Your task to perform on an android device: turn off location history Image 0: 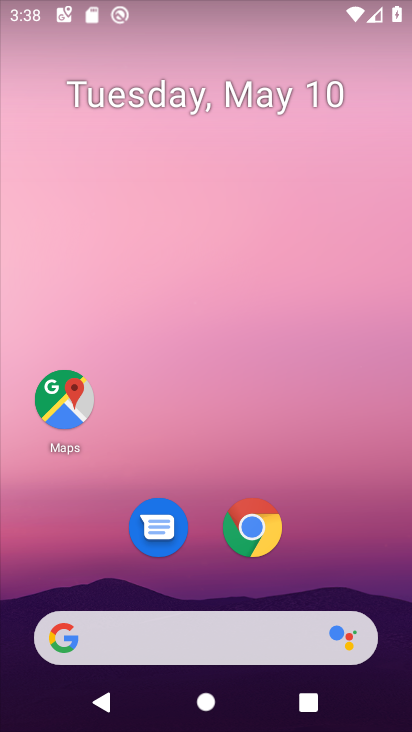
Step 0: drag from (381, 578) to (350, 302)
Your task to perform on an android device: turn off location history Image 1: 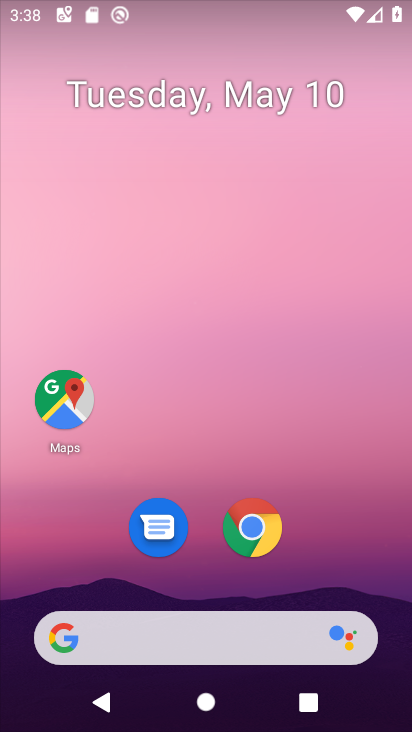
Step 1: drag from (394, 651) to (321, 316)
Your task to perform on an android device: turn off location history Image 2: 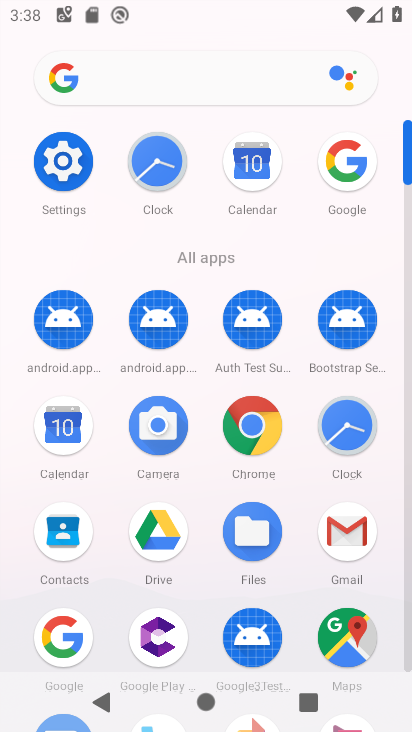
Step 2: click (47, 162)
Your task to perform on an android device: turn off location history Image 3: 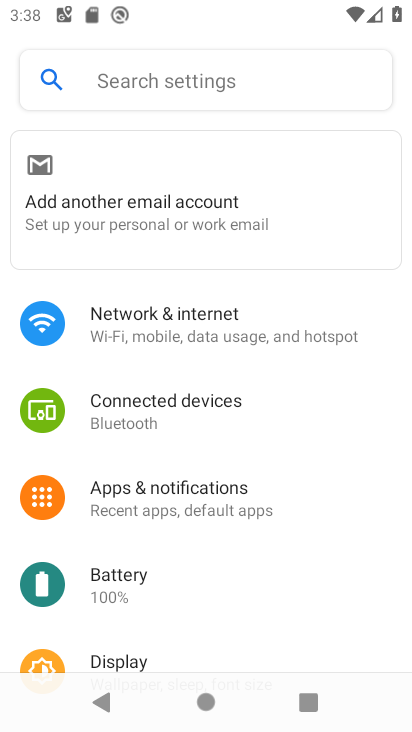
Step 3: drag from (340, 592) to (295, 420)
Your task to perform on an android device: turn off location history Image 4: 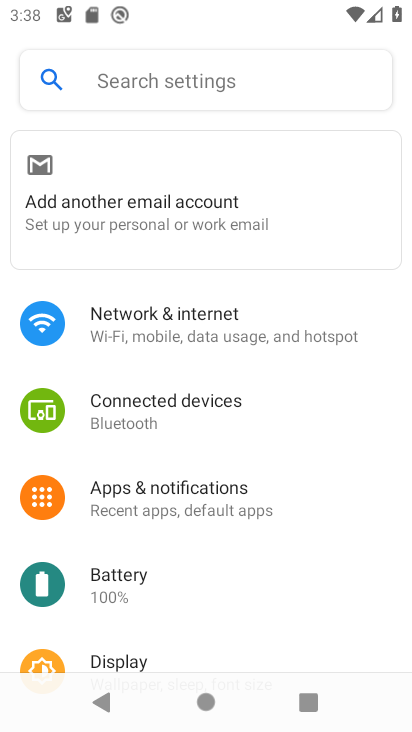
Step 4: drag from (369, 655) to (374, 409)
Your task to perform on an android device: turn off location history Image 5: 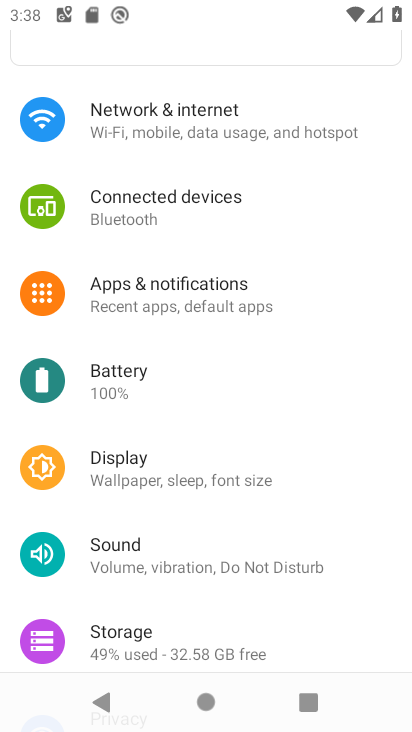
Step 5: drag from (358, 625) to (353, 390)
Your task to perform on an android device: turn off location history Image 6: 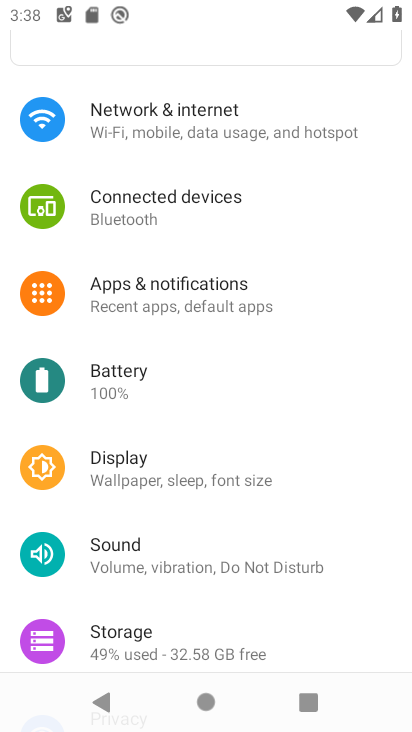
Step 6: drag from (349, 635) to (353, 345)
Your task to perform on an android device: turn off location history Image 7: 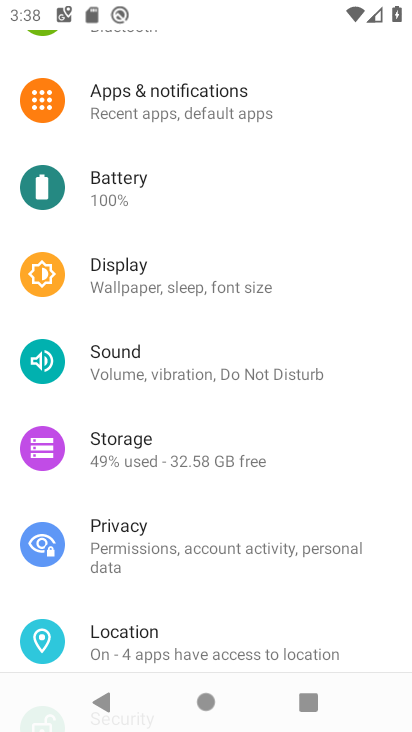
Step 7: drag from (357, 643) to (372, 361)
Your task to perform on an android device: turn off location history Image 8: 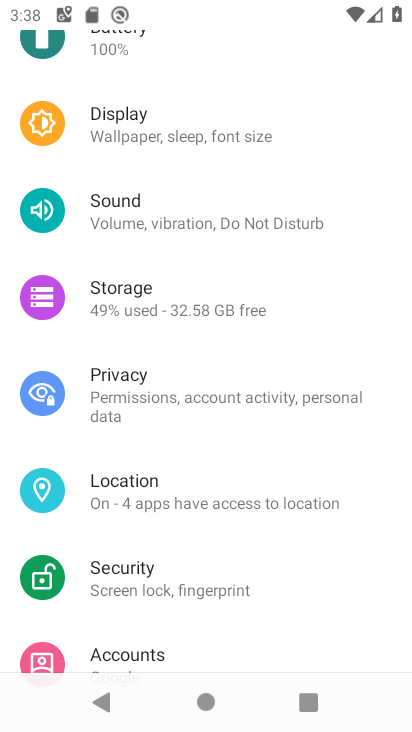
Step 8: click (119, 487)
Your task to perform on an android device: turn off location history Image 9: 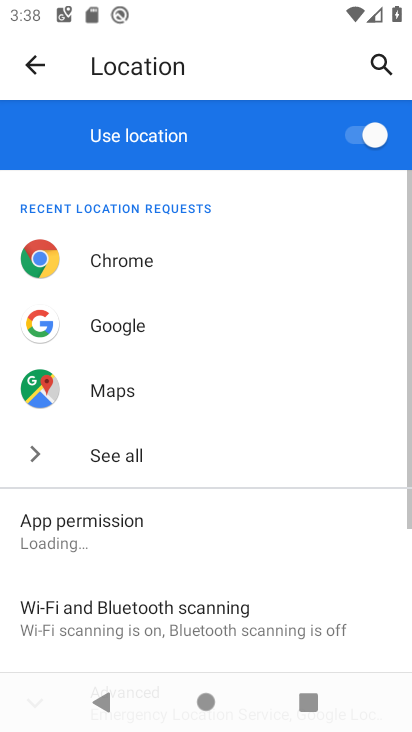
Step 9: drag from (314, 588) to (284, 280)
Your task to perform on an android device: turn off location history Image 10: 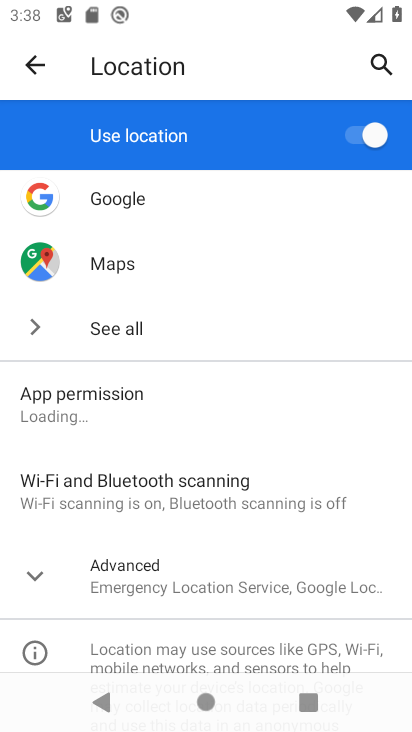
Step 10: drag from (315, 516) to (287, 285)
Your task to perform on an android device: turn off location history Image 11: 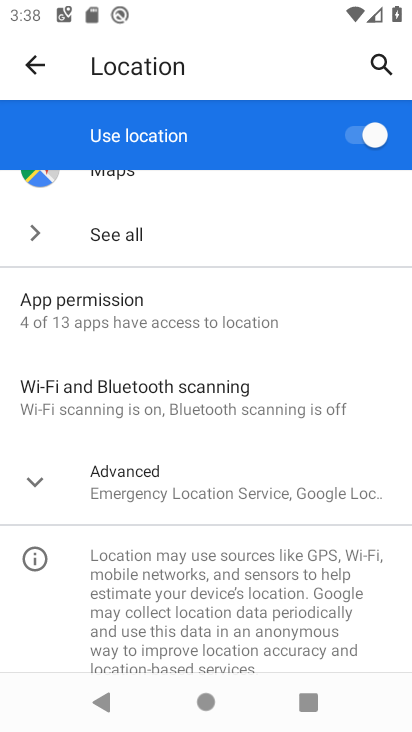
Step 11: drag from (187, 618) to (148, 285)
Your task to perform on an android device: turn off location history Image 12: 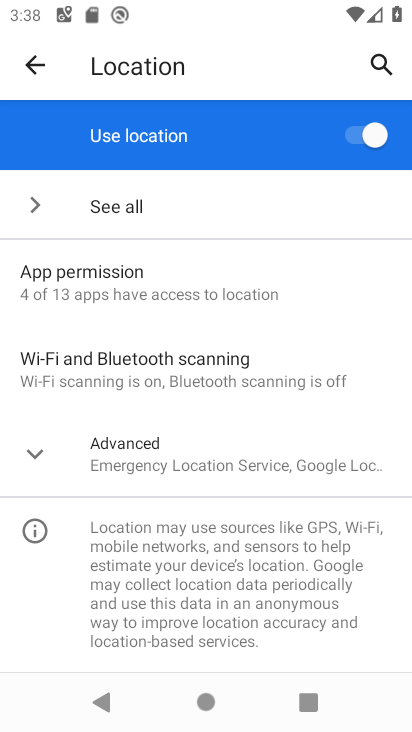
Step 12: click (37, 457)
Your task to perform on an android device: turn off location history Image 13: 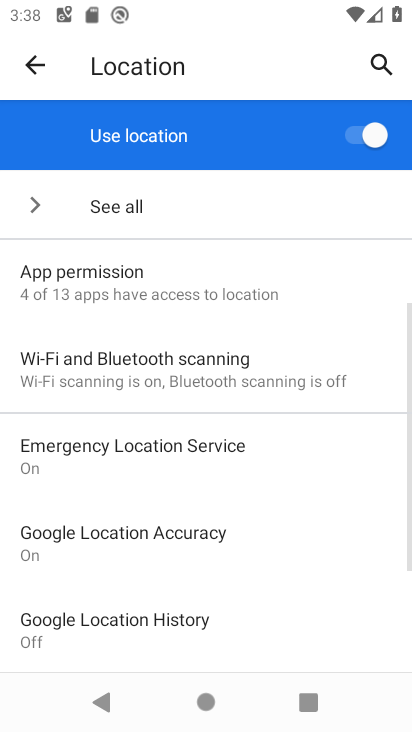
Step 13: drag from (264, 638) to (261, 443)
Your task to perform on an android device: turn off location history Image 14: 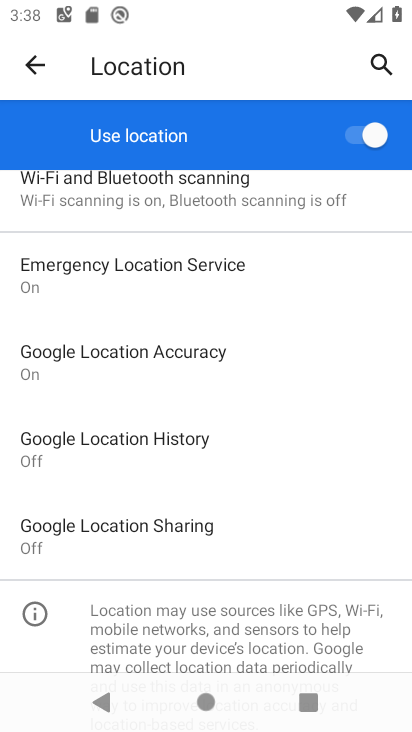
Step 14: click (89, 436)
Your task to perform on an android device: turn off location history Image 15: 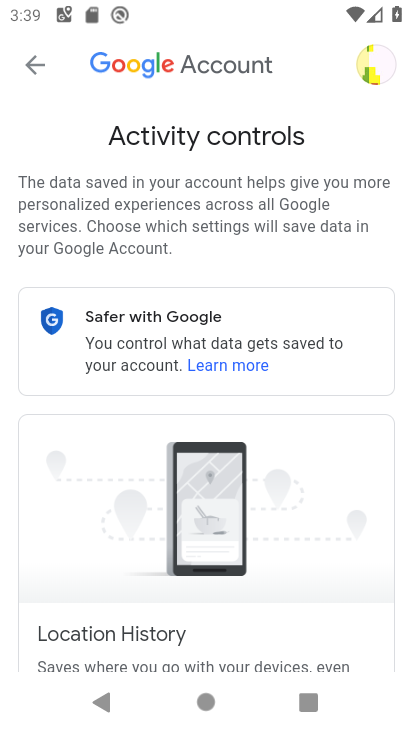
Step 15: task complete